Your task to perform on an android device: turn on translation in the chrome app Image 0: 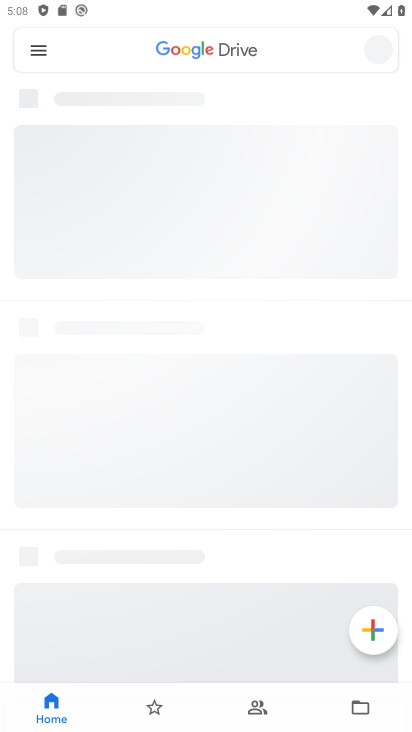
Step 0: press home button
Your task to perform on an android device: turn on translation in the chrome app Image 1: 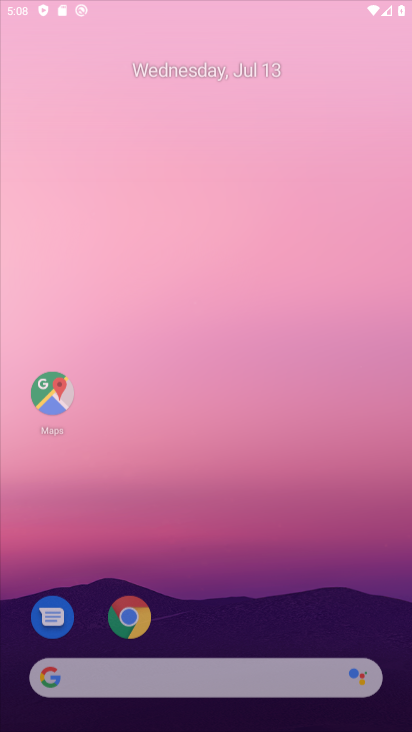
Step 1: drag from (244, 614) to (301, 76)
Your task to perform on an android device: turn on translation in the chrome app Image 2: 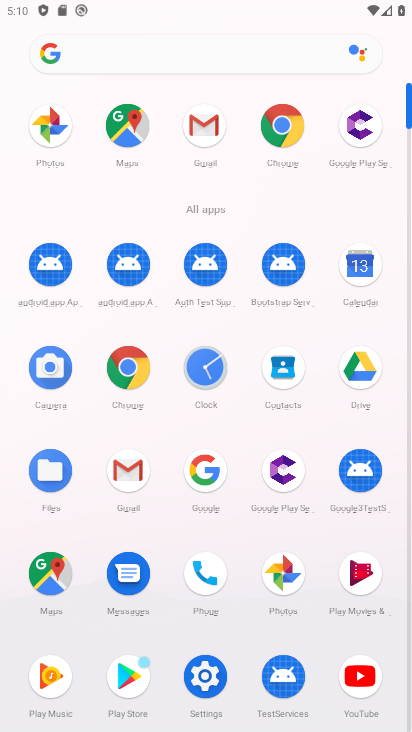
Step 2: click (109, 374)
Your task to perform on an android device: turn on translation in the chrome app Image 3: 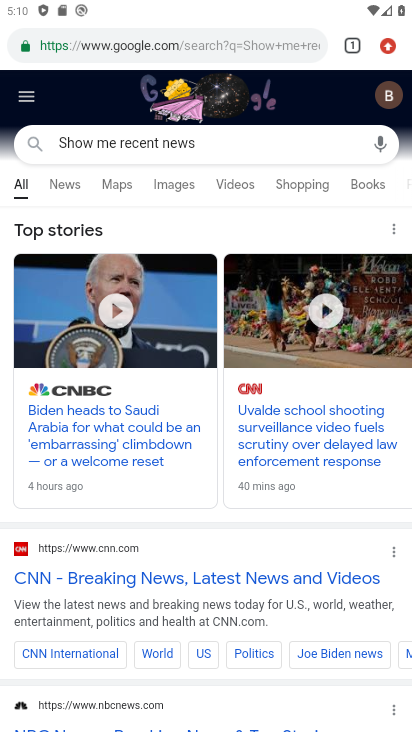
Step 3: drag from (389, 56) to (242, 555)
Your task to perform on an android device: turn on translation in the chrome app Image 4: 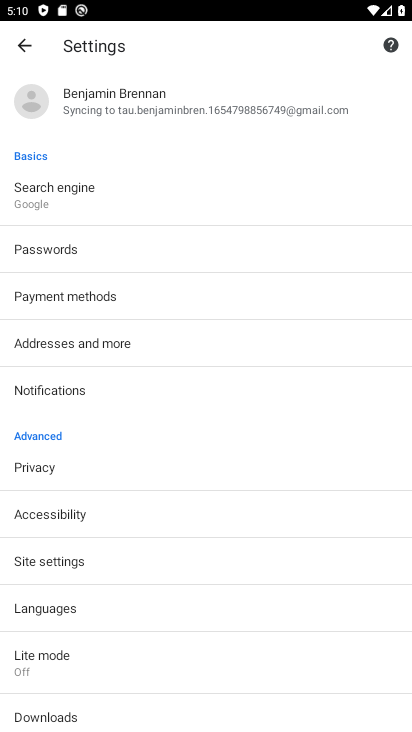
Step 4: click (34, 569)
Your task to perform on an android device: turn on translation in the chrome app Image 5: 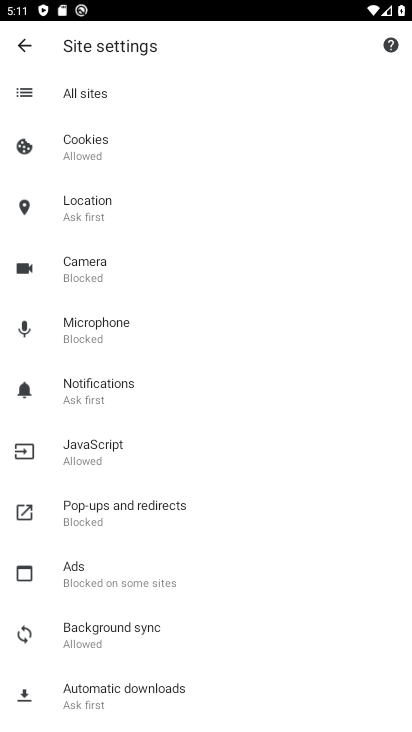
Step 5: click (21, 43)
Your task to perform on an android device: turn on translation in the chrome app Image 6: 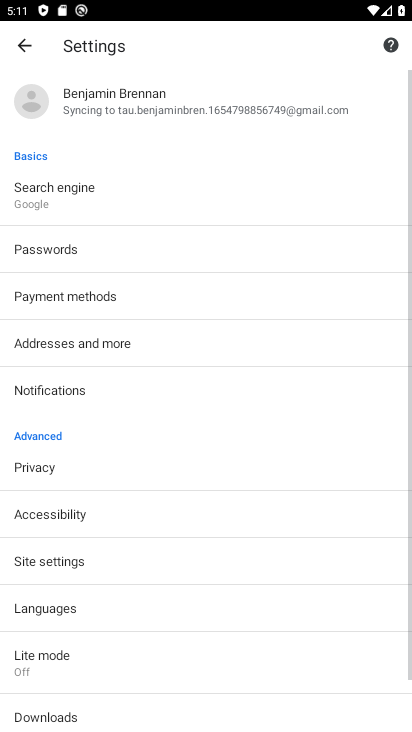
Step 6: click (68, 604)
Your task to perform on an android device: turn on translation in the chrome app Image 7: 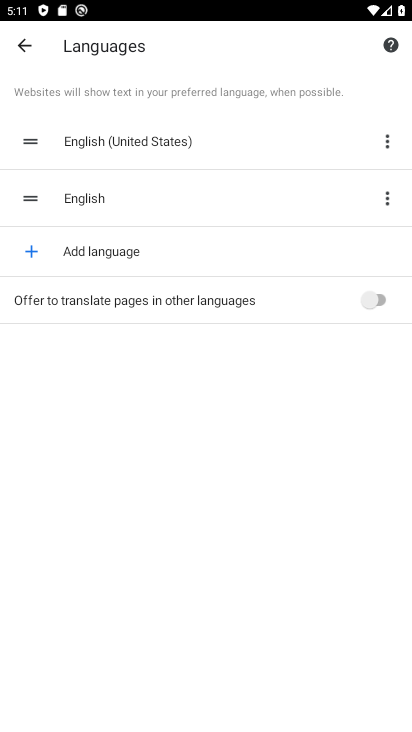
Step 7: click (313, 301)
Your task to perform on an android device: turn on translation in the chrome app Image 8: 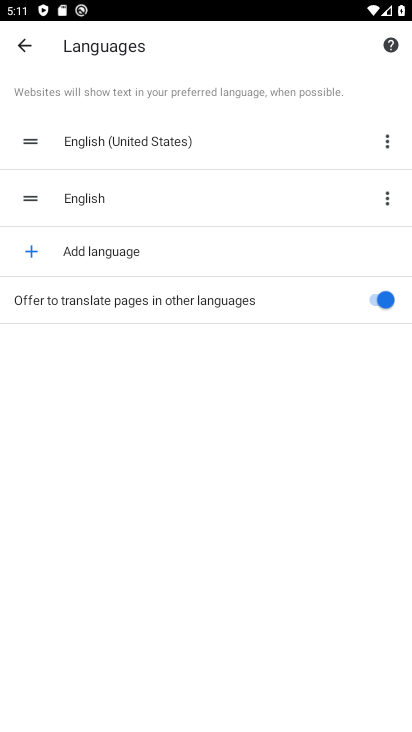
Step 8: task complete